Your task to perform on an android device: Open network settings Image 0: 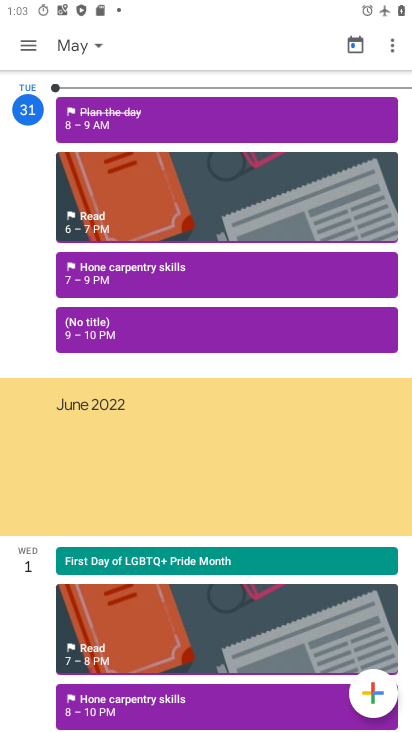
Step 0: press home button
Your task to perform on an android device: Open network settings Image 1: 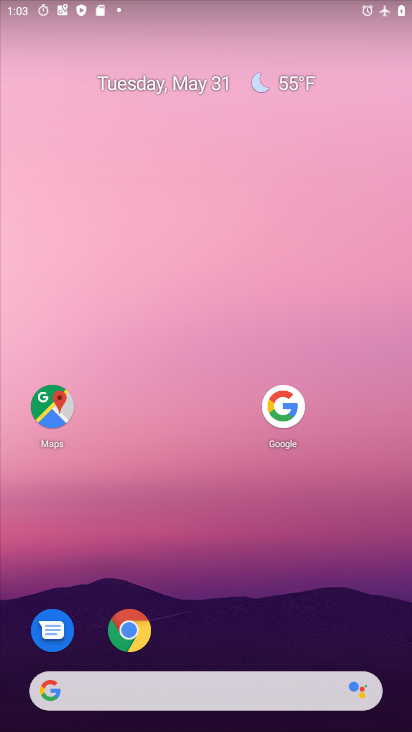
Step 1: drag from (212, 688) to (365, 244)
Your task to perform on an android device: Open network settings Image 2: 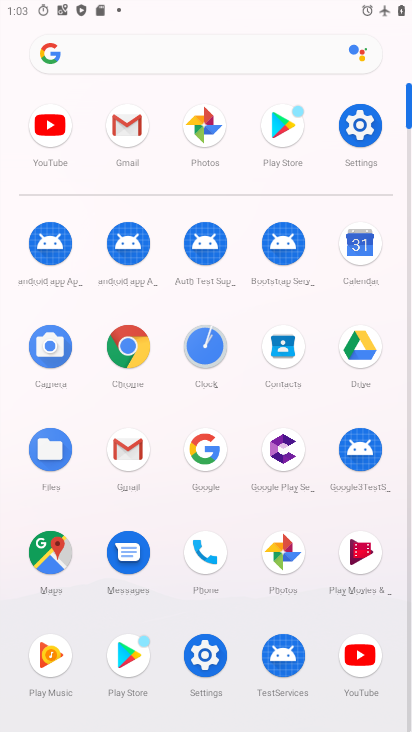
Step 2: click (352, 131)
Your task to perform on an android device: Open network settings Image 3: 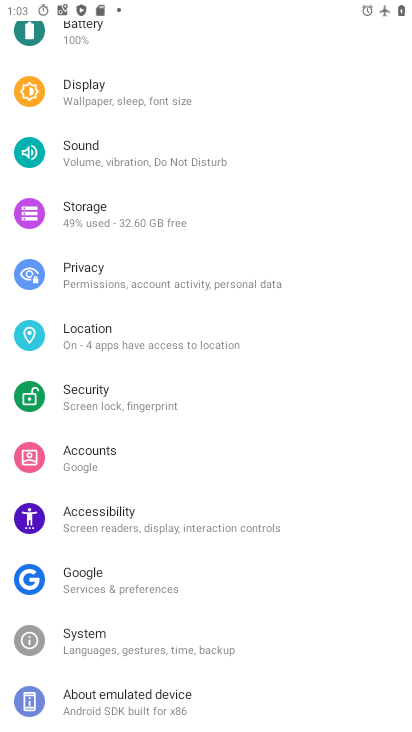
Step 3: drag from (255, 98) to (156, 519)
Your task to perform on an android device: Open network settings Image 4: 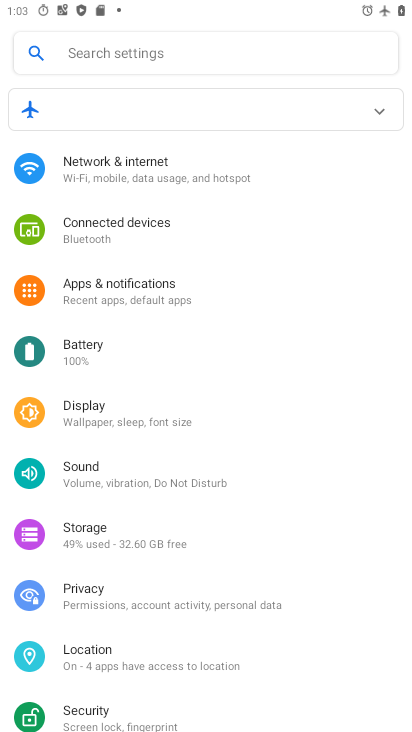
Step 4: click (144, 157)
Your task to perform on an android device: Open network settings Image 5: 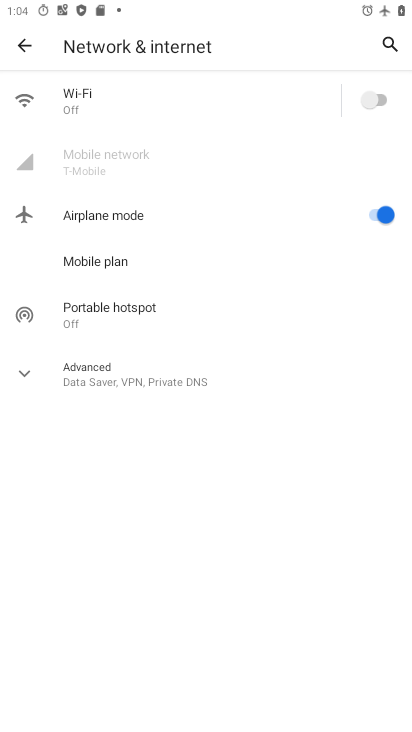
Step 5: task complete